Your task to perform on an android device: Do I have any events this weekend? Image 0: 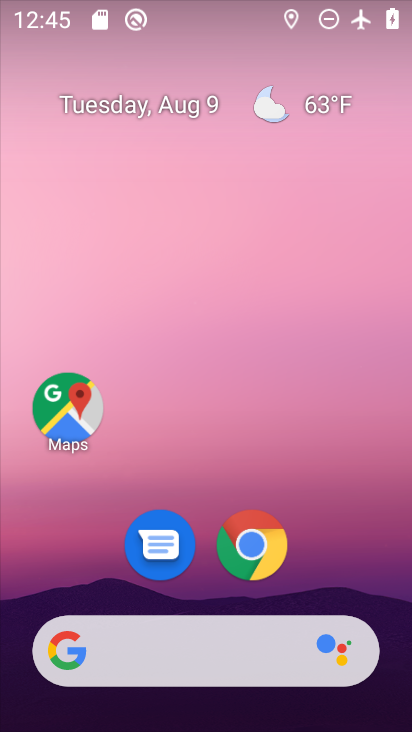
Step 0: drag from (174, 672) to (409, 280)
Your task to perform on an android device: Do I have any events this weekend? Image 1: 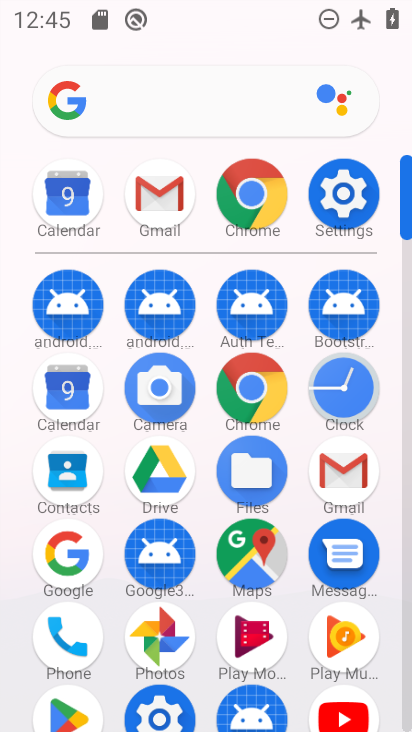
Step 1: click (70, 389)
Your task to perform on an android device: Do I have any events this weekend? Image 2: 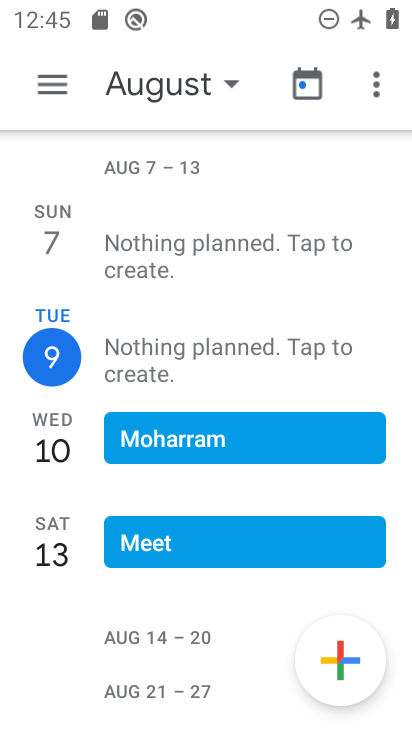
Step 2: click (228, 84)
Your task to perform on an android device: Do I have any events this weekend? Image 3: 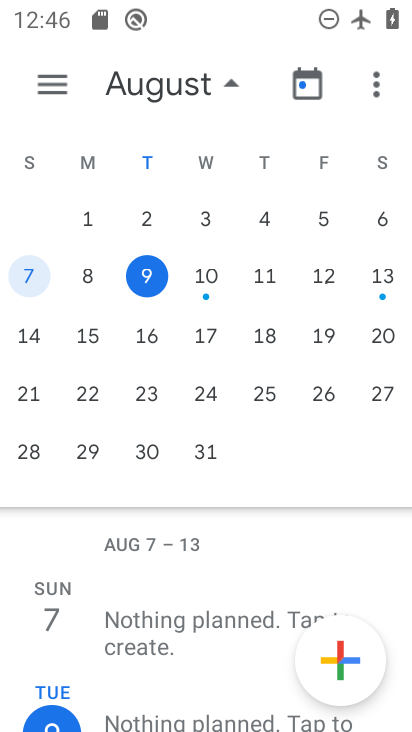
Step 3: click (388, 281)
Your task to perform on an android device: Do I have any events this weekend? Image 4: 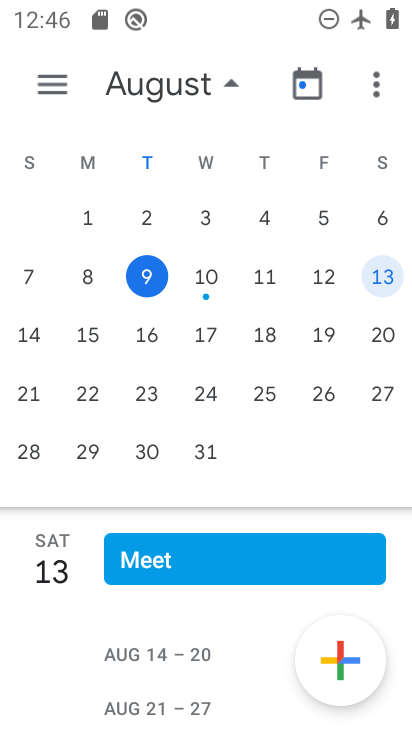
Step 4: click (47, 86)
Your task to perform on an android device: Do I have any events this weekend? Image 5: 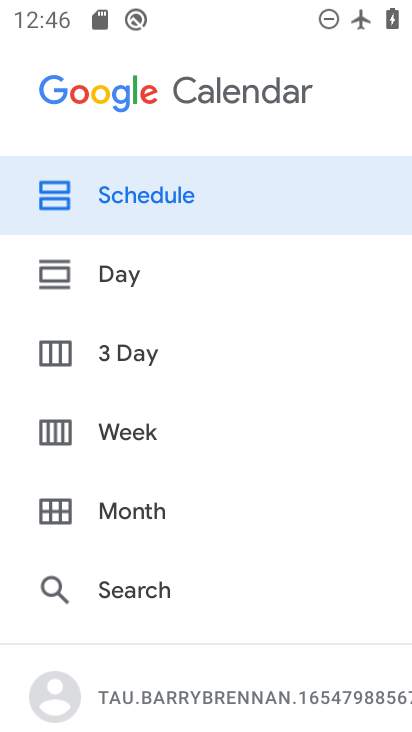
Step 5: click (102, 218)
Your task to perform on an android device: Do I have any events this weekend? Image 6: 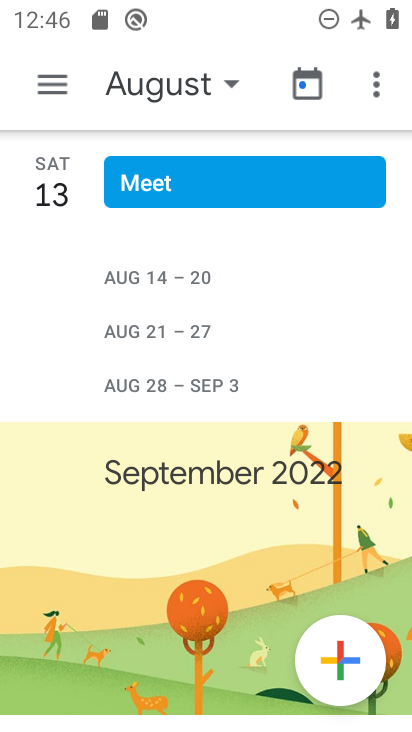
Step 6: task complete